Your task to perform on an android device: Open calendar and show me the third week of next month Image 0: 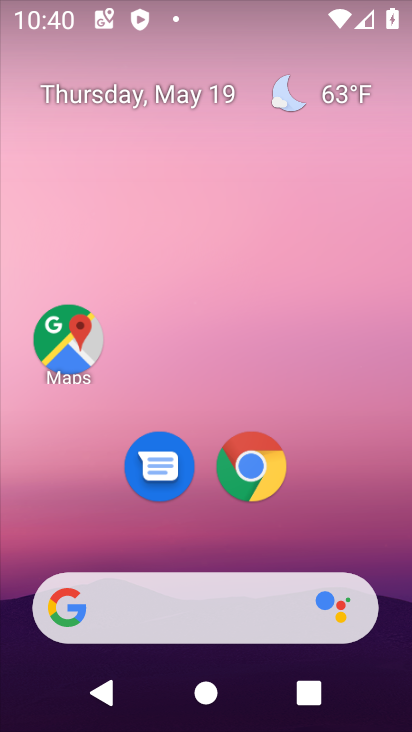
Step 0: drag from (393, 634) to (299, 137)
Your task to perform on an android device: Open calendar and show me the third week of next month Image 1: 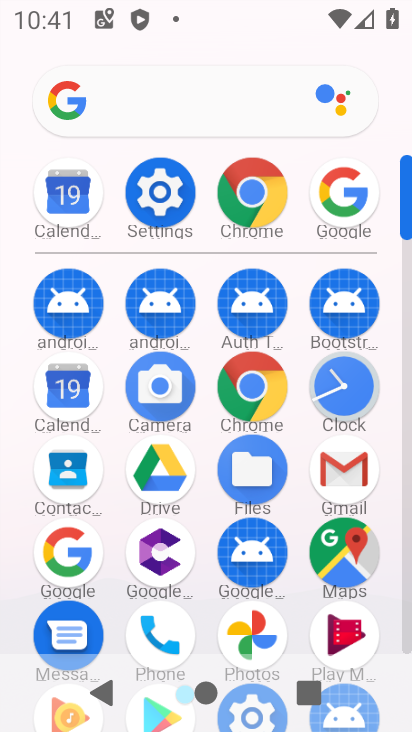
Step 1: click (70, 392)
Your task to perform on an android device: Open calendar and show me the third week of next month Image 2: 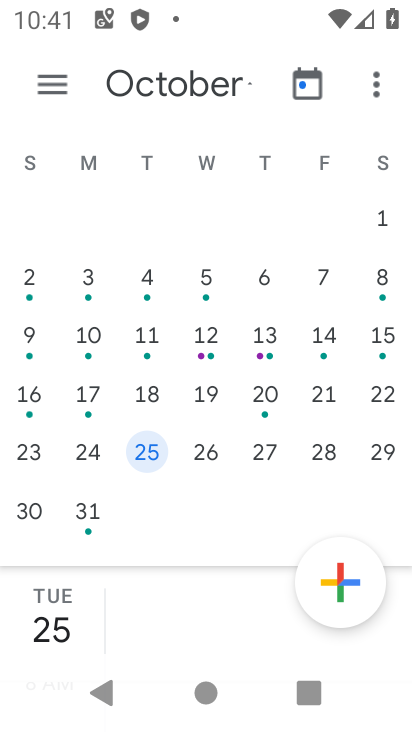
Step 2: drag from (356, 405) to (2, 316)
Your task to perform on an android device: Open calendar and show me the third week of next month Image 3: 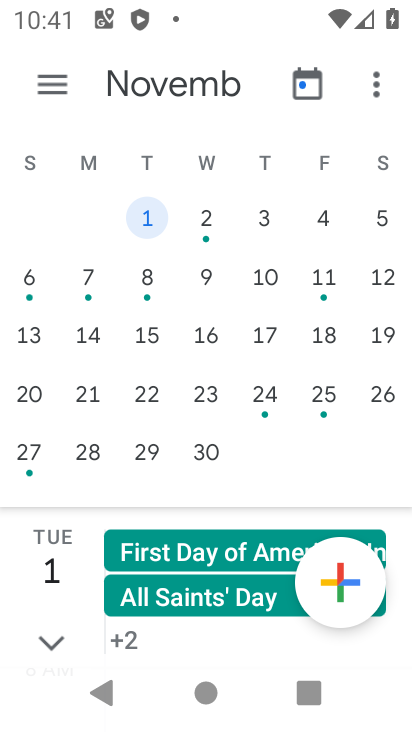
Step 3: click (260, 407)
Your task to perform on an android device: Open calendar and show me the third week of next month Image 4: 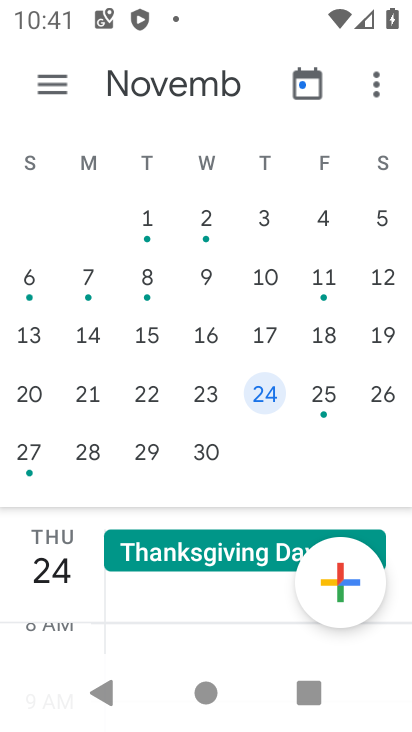
Step 4: task complete